Your task to perform on an android device: turn off location history Image 0: 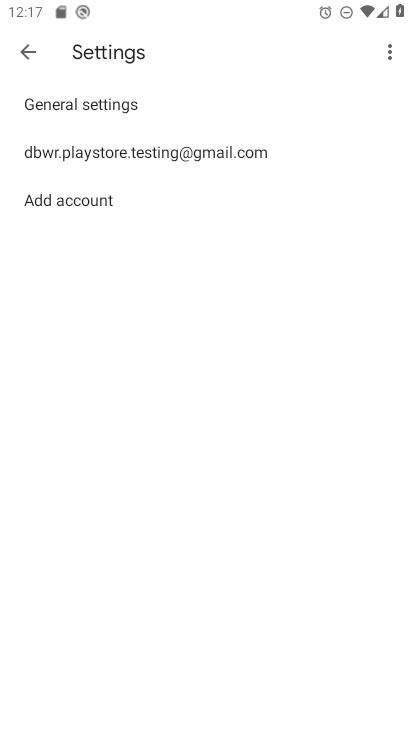
Step 0: press home button
Your task to perform on an android device: turn off location history Image 1: 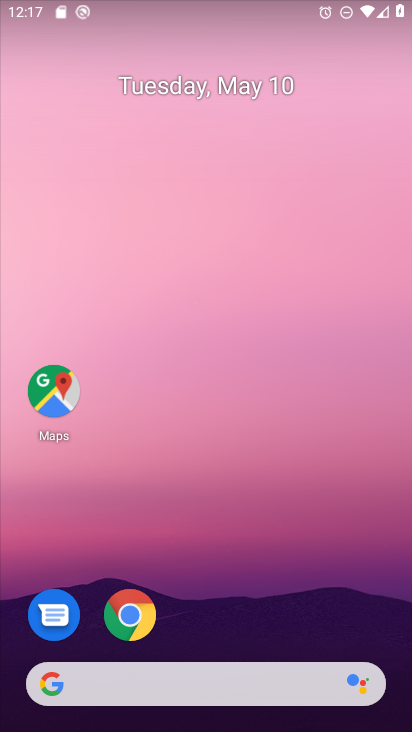
Step 1: drag from (173, 719) to (266, 269)
Your task to perform on an android device: turn off location history Image 2: 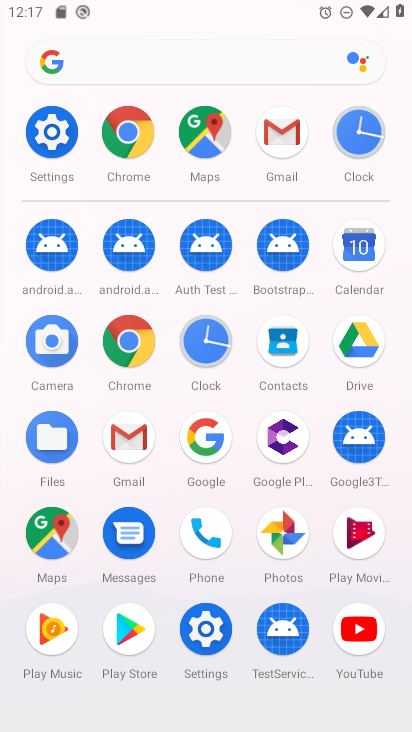
Step 2: click (191, 629)
Your task to perform on an android device: turn off location history Image 3: 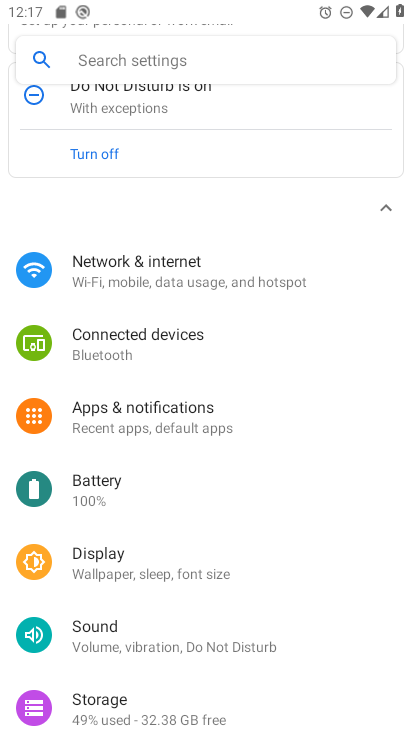
Step 3: click (190, 66)
Your task to perform on an android device: turn off location history Image 4: 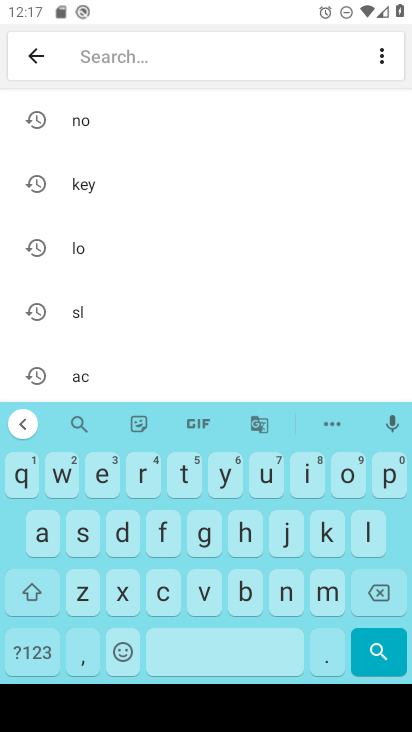
Step 4: click (89, 253)
Your task to perform on an android device: turn off location history Image 5: 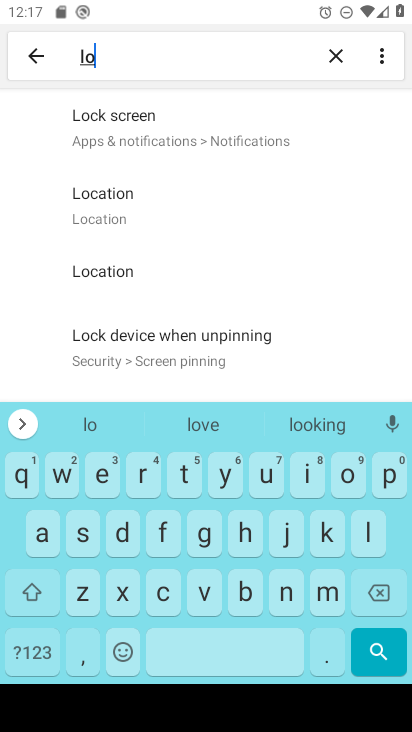
Step 5: click (121, 210)
Your task to perform on an android device: turn off location history Image 6: 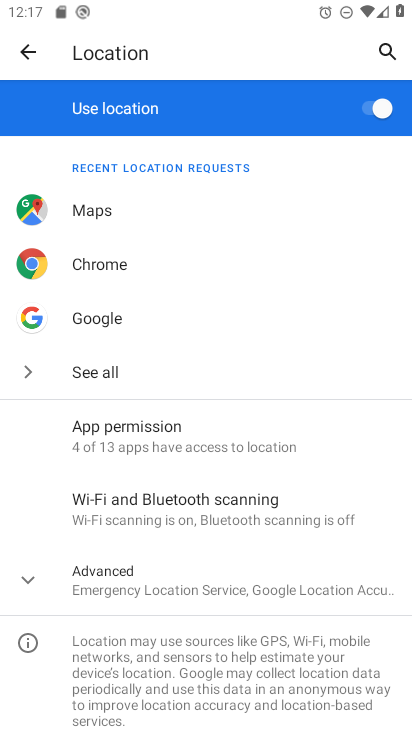
Step 6: click (25, 586)
Your task to perform on an android device: turn off location history Image 7: 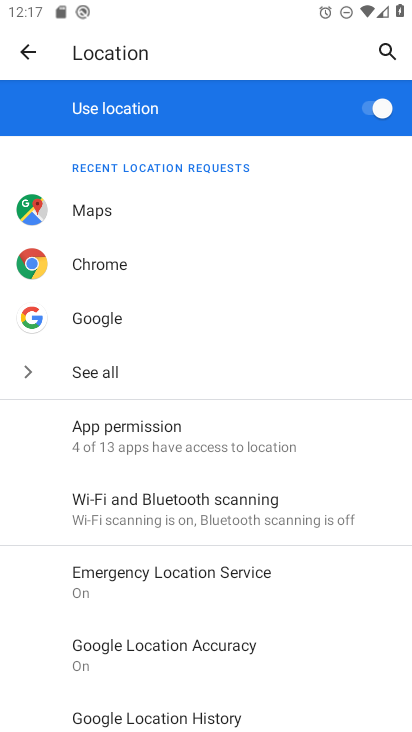
Step 7: click (154, 708)
Your task to perform on an android device: turn off location history Image 8: 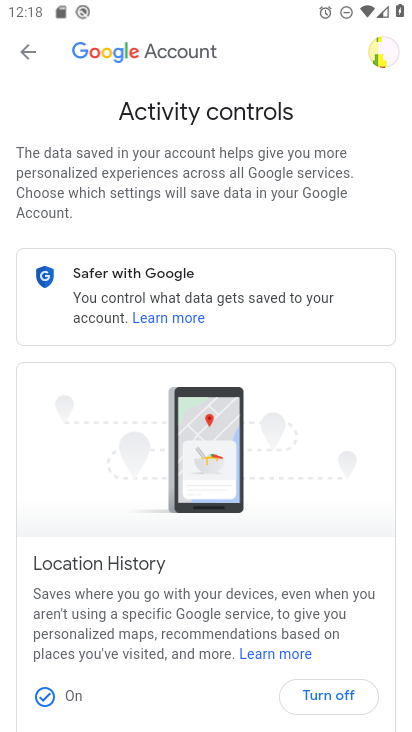
Step 8: task complete